Your task to perform on an android device: Show me productivity apps on the Play Store Image 0: 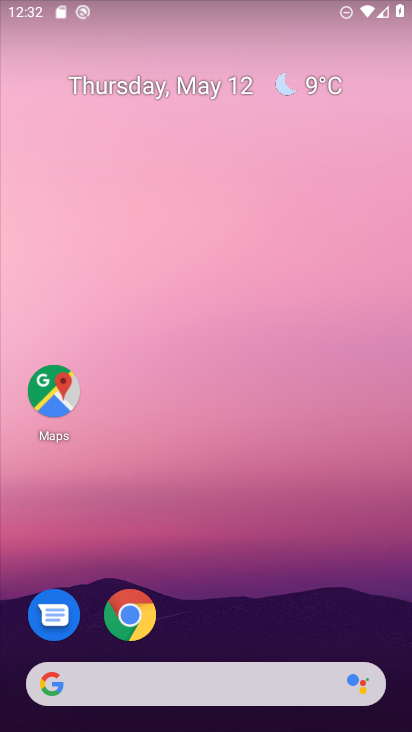
Step 0: drag from (276, 580) to (194, 138)
Your task to perform on an android device: Show me productivity apps on the Play Store Image 1: 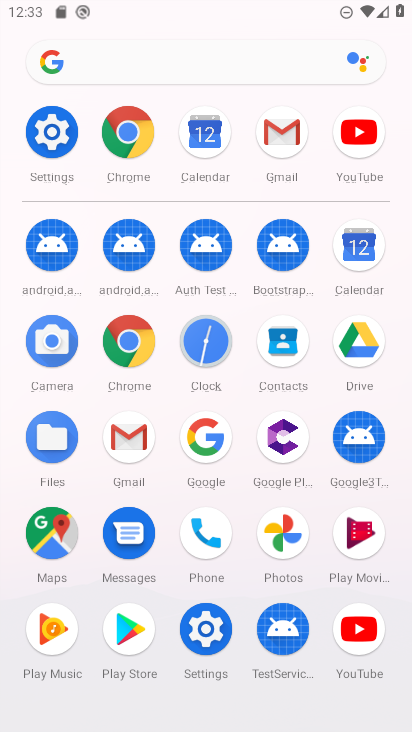
Step 1: click (127, 633)
Your task to perform on an android device: Show me productivity apps on the Play Store Image 2: 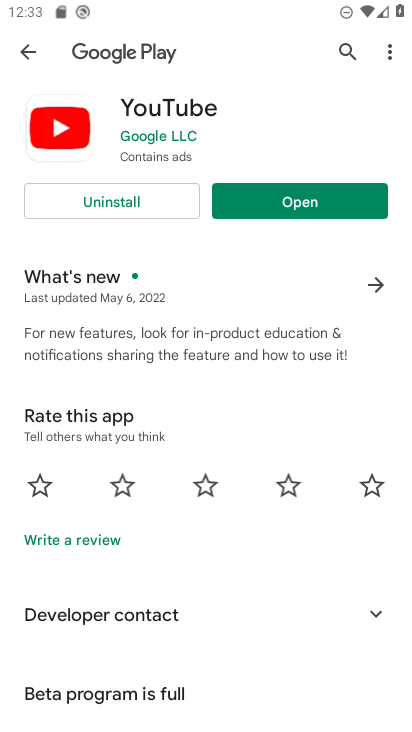
Step 2: click (34, 52)
Your task to perform on an android device: Show me productivity apps on the Play Store Image 3: 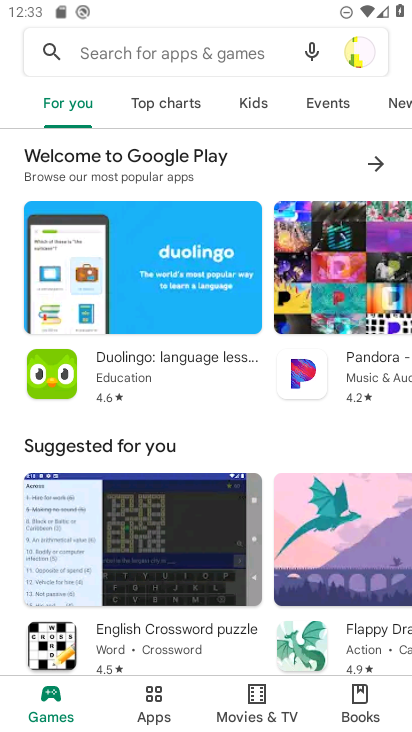
Step 3: click (148, 692)
Your task to perform on an android device: Show me productivity apps on the Play Store Image 4: 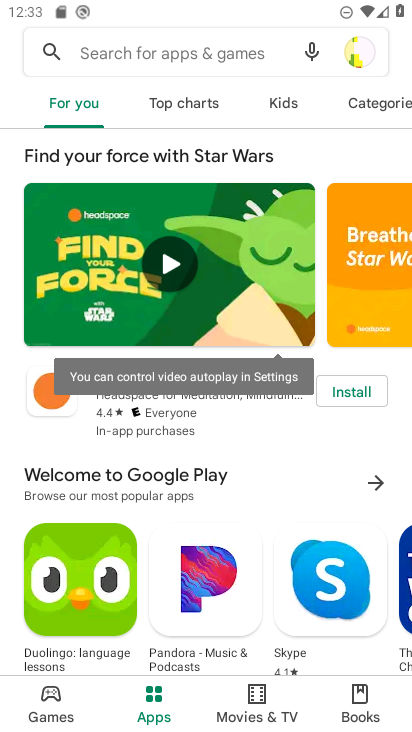
Step 4: task complete